Your task to perform on an android device: Open privacy settings Image 0: 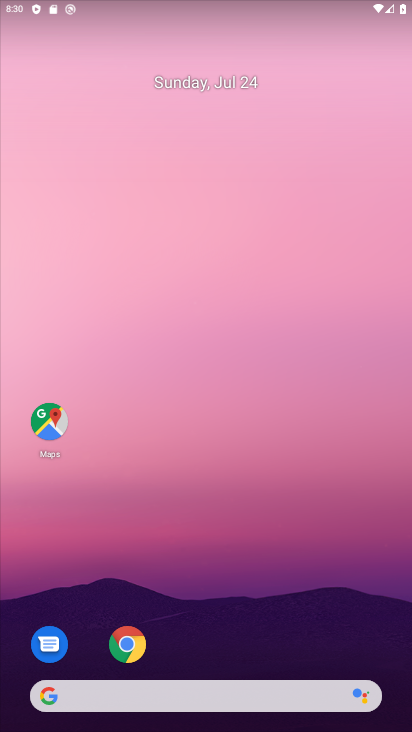
Step 0: drag from (259, 640) to (241, 187)
Your task to perform on an android device: Open privacy settings Image 1: 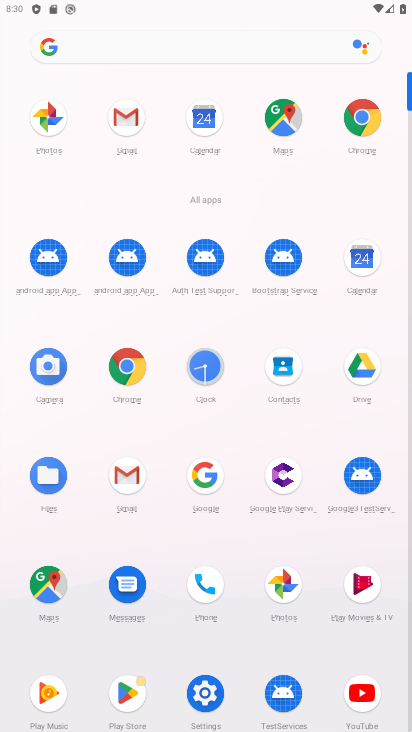
Step 1: click (129, 368)
Your task to perform on an android device: Open privacy settings Image 2: 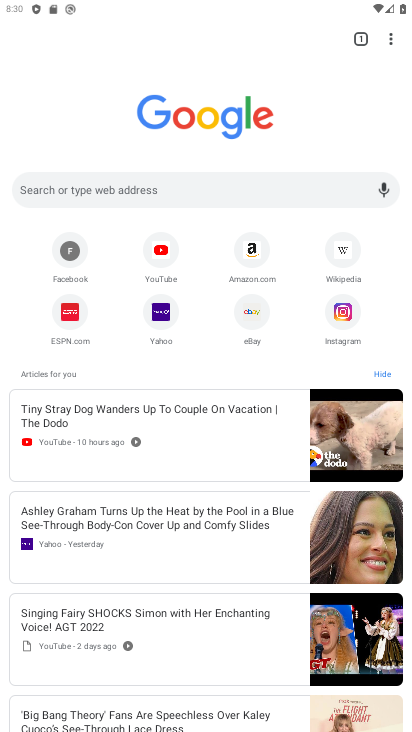
Step 2: drag from (390, 34) to (250, 357)
Your task to perform on an android device: Open privacy settings Image 3: 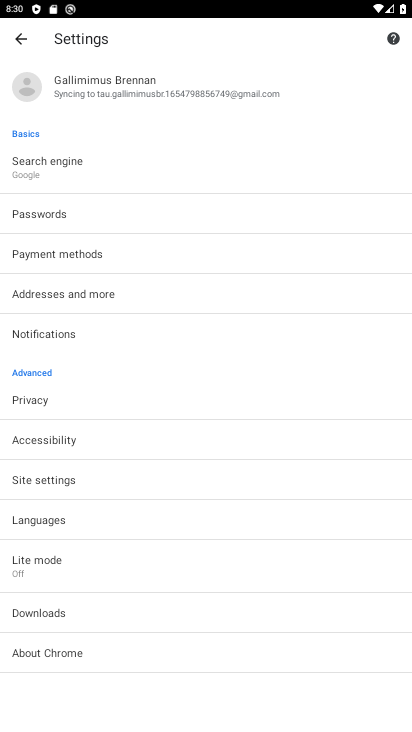
Step 3: click (36, 397)
Your task to perform on an android device: Open privacy settings Image 4: 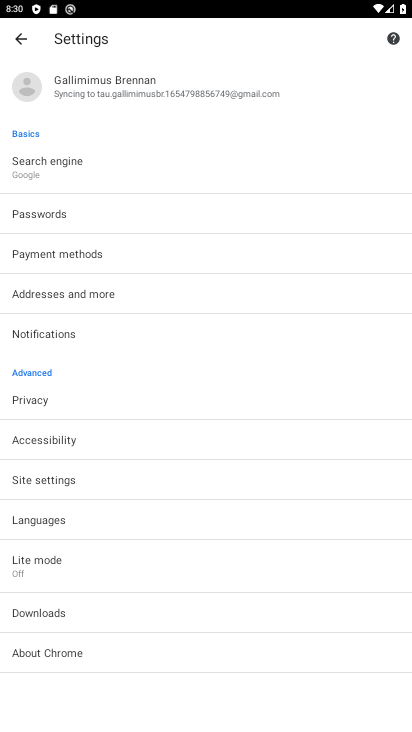
Step 4: click (46, 398)
Your task to perform on an android device: Open privacy settings Image 5: 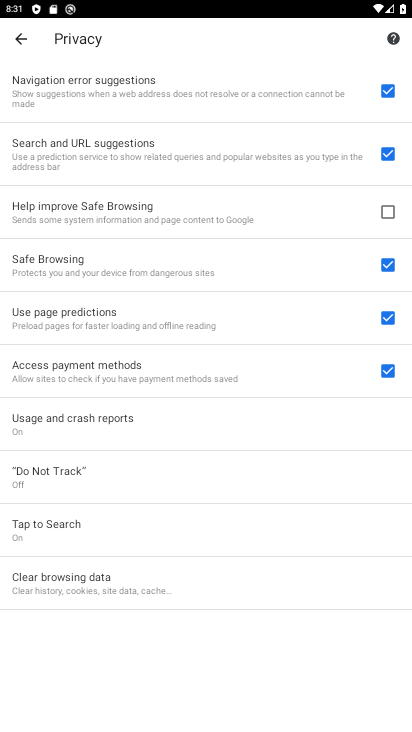
Step 5: task complete